Your task to perform on an android device: What is the recent news? Image 0: 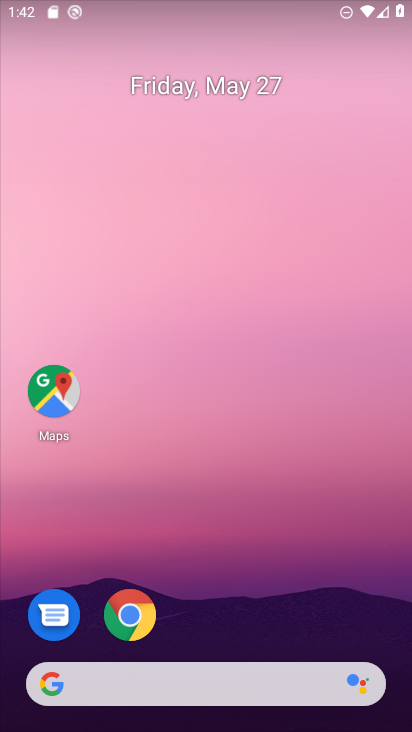
Step 0: drag from (235, 592) to (231, 135)
Your task to perform on an android device: What is the recent news? Image 1: 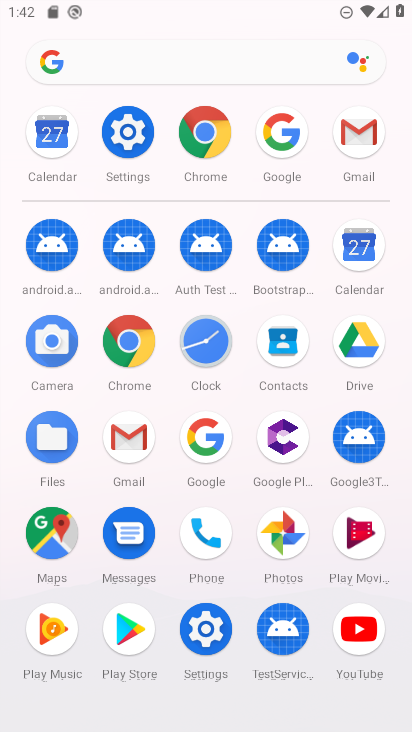
Step 1: click (138, 358)
Your task to perform on an android device: What is the recent news? Image 2: 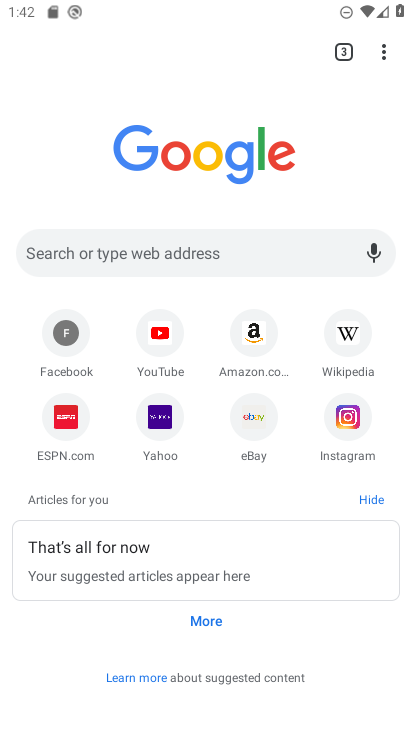
Step 2: task complete